Your task to perform on an android device: Do I have any events today? Image 0: 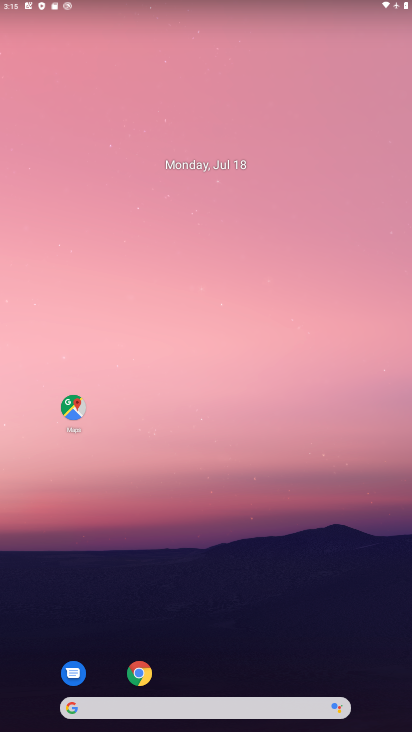
Step 0: drag from (259, 659) to (245, 344)
Your task to perform on an android device: Do I have any events today? Image 1: 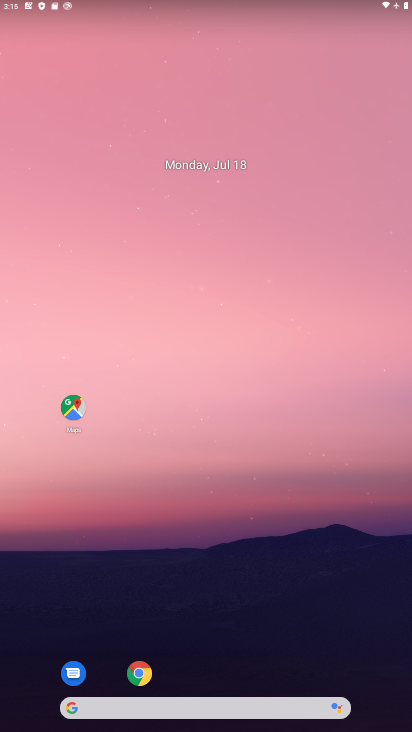
Step 1: drag from (269, 670) to (244, 273)
Your task to perform on an android device: Do I have any events today? Image 2: 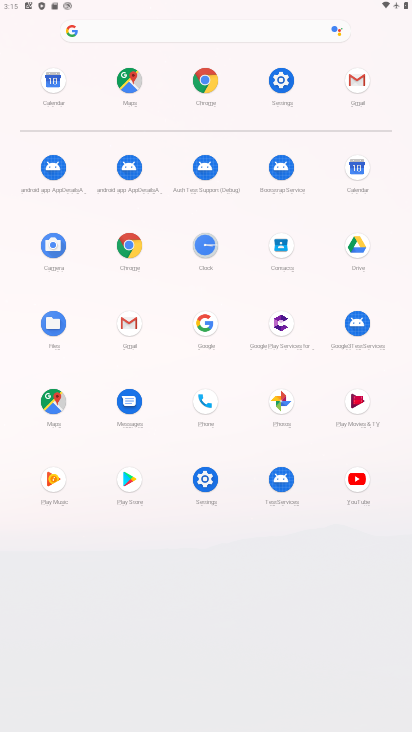
Step 2: click (358, 164)
Your task to perform on an android device: Do I have any events today? Image 3: 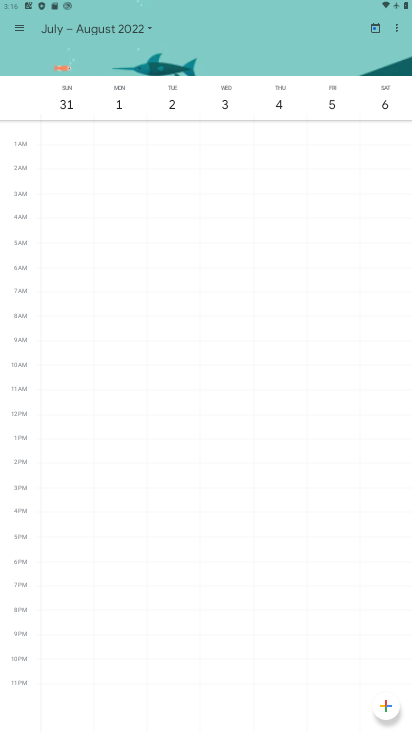
Step 3: click (19, 27)
Your task to perform on an android device: Do I have any events today? Image 4: 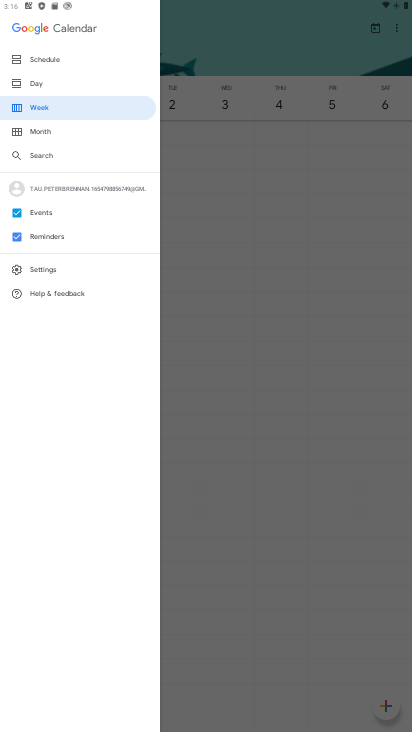
Step 4: click (72, 137)
Your task to perform on an android device: Do I have any events today? Image 5: 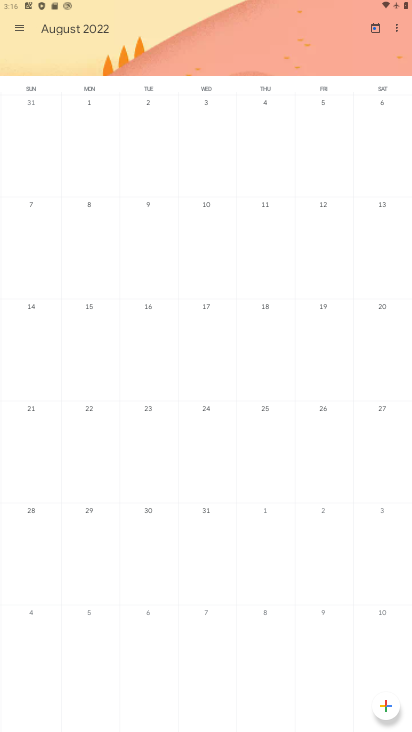
Step 5: drag from (59, 434) to (390, 124)
Your task to perform on an android device: Do I have any events today? Image 6: 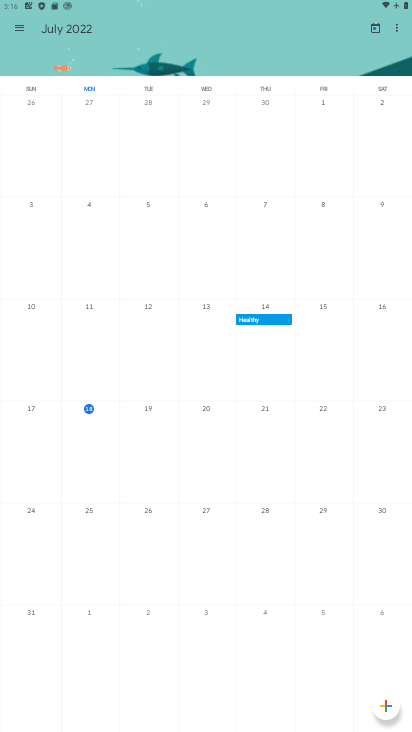
Step 6: click (151, 453)
Your task to perform on an android device: Do I have any events today? Image 7: 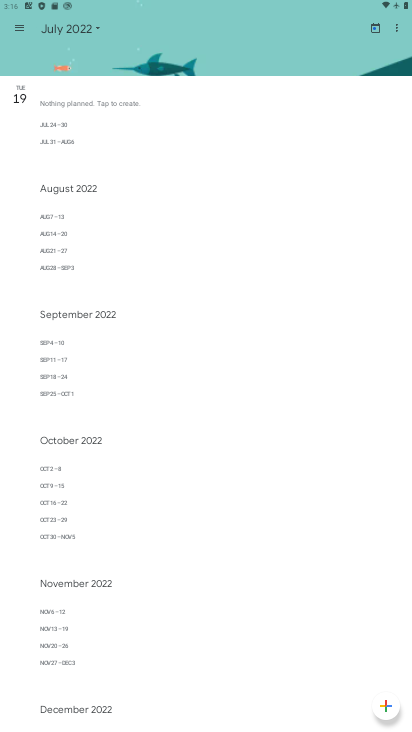
Step 7: task complete